Your task to perform on an android device: star an email in the gmail app Image 0: 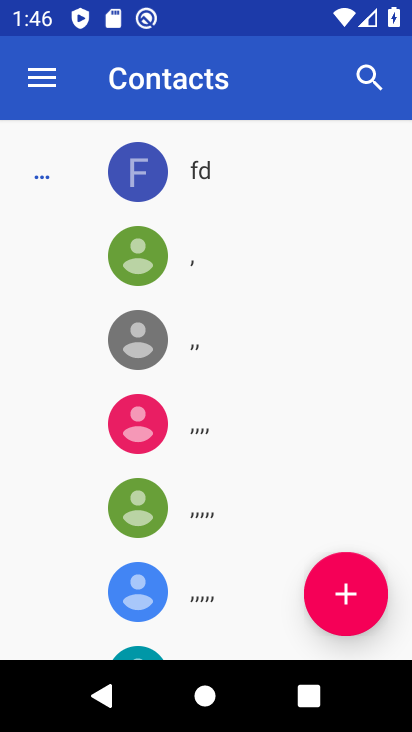
Step 0: press home button
Your task to perform on an android device: star an email in the gmail app Image 1: 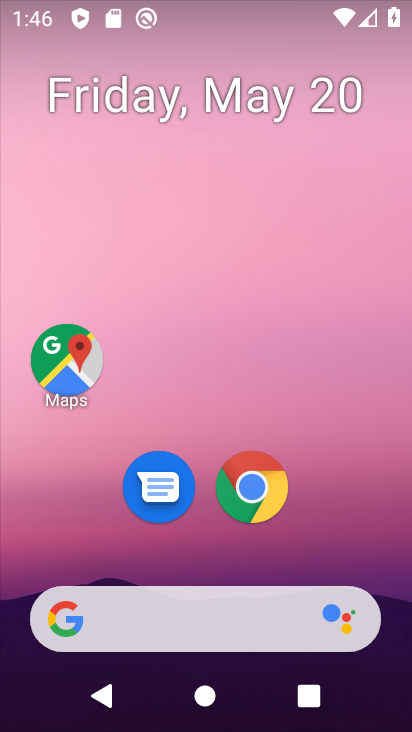
Step 1: drag from (350, 501) to (312, 121)
Your task to perform on an android device: star an email in the gmail app Image 2: 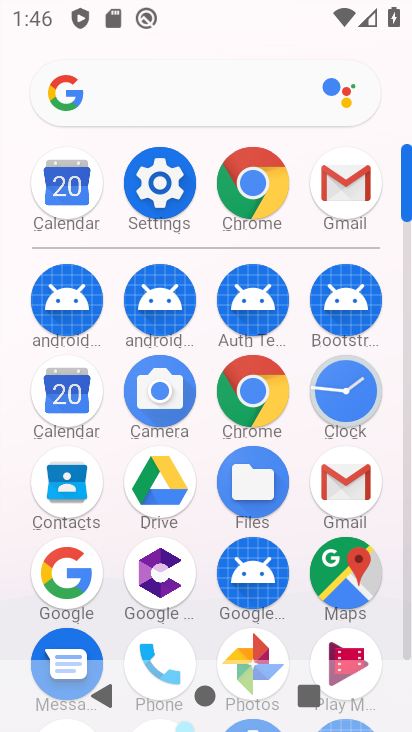
Step 2: click (333, 205)
Your task to perform on an android device: star an email in the gmail app Image 3: 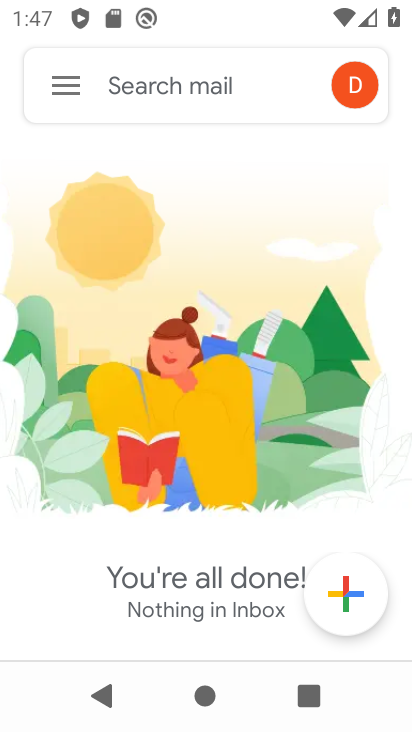
Step 3: task complete